Your task to perform on an android device: Open eBay Image 0: 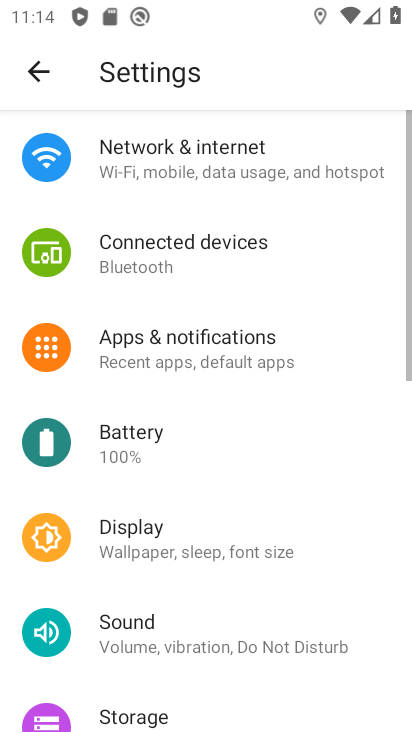
Step 0: press home button
Your task to perform on an android device: Open eBay Image 1: 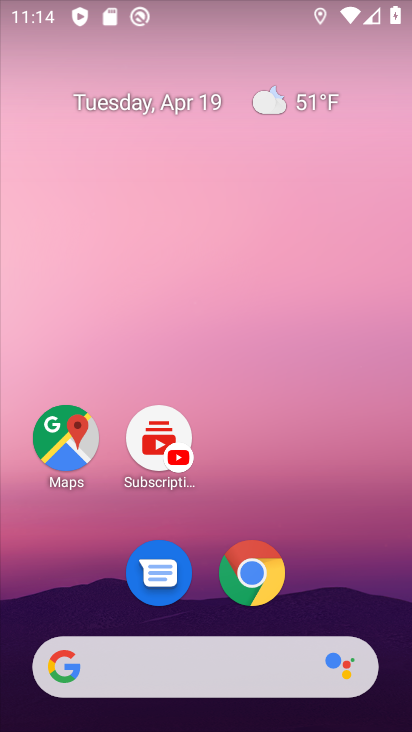
Step 1: click (245, 570)
Your task to perform on an android device: Open eBay Image 2: 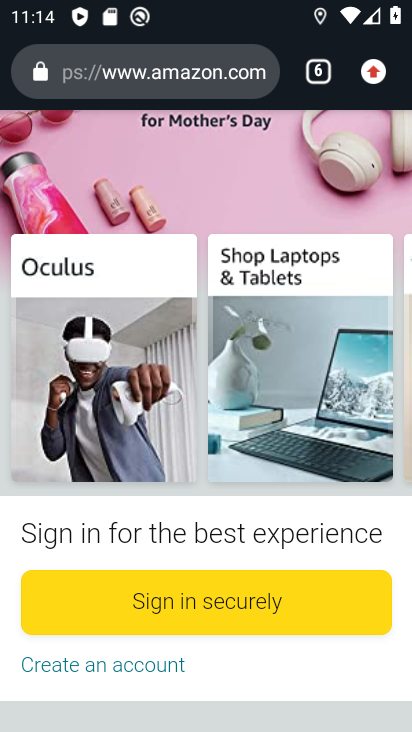
Step 2: click (318, 77)
Your task to perform on an android device: Open eBay Image 3: 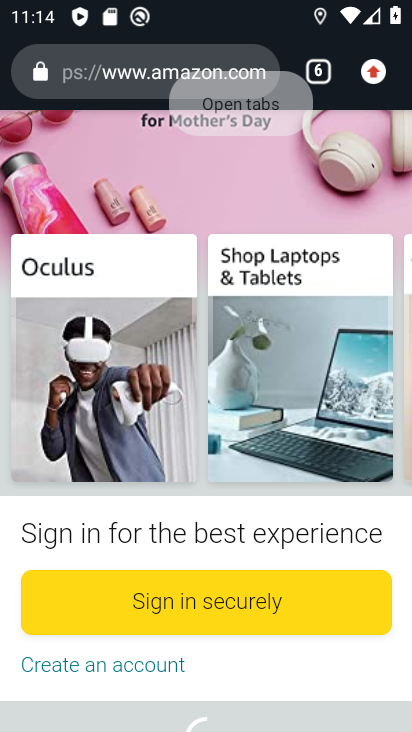
Step 3: click (318, 73)
Your task to perform on an android device: Open eBay Image 4: 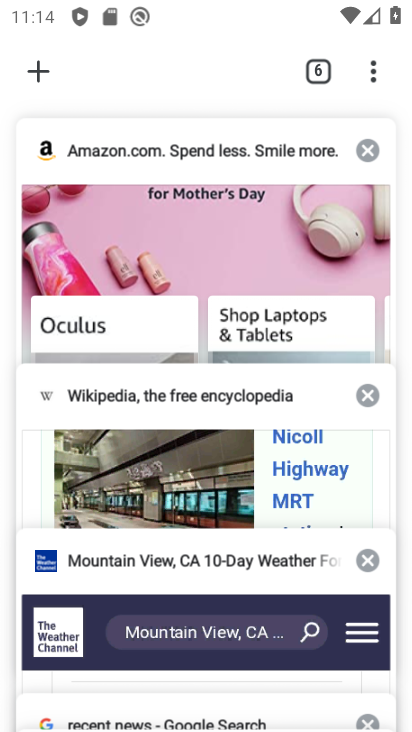
Step 4: drag from (193, 522) to (194, 188)
Your task to perform on an android device: Open eBay Image 5: 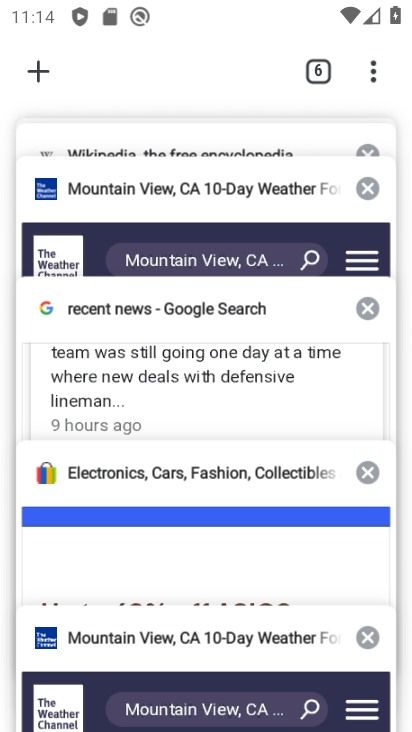
Step 5: drag from (174, 565) to (170, 207)
Your task to perform on an android device: Open eBay Image 6: 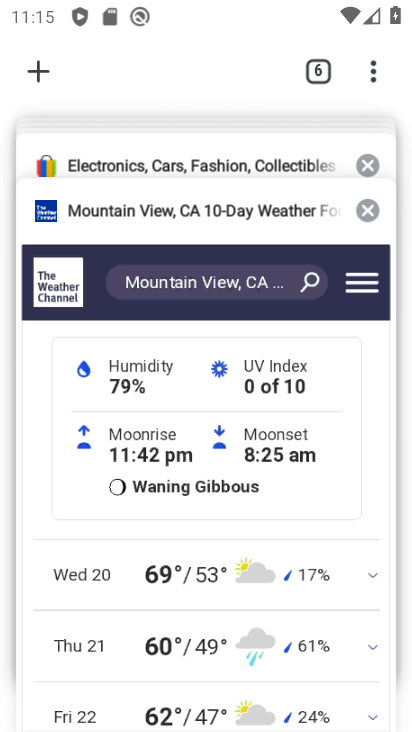
Step 6: drag from (145, 211) to (124, 393)
Your task to perform on an android device: Open eBay Image 7: 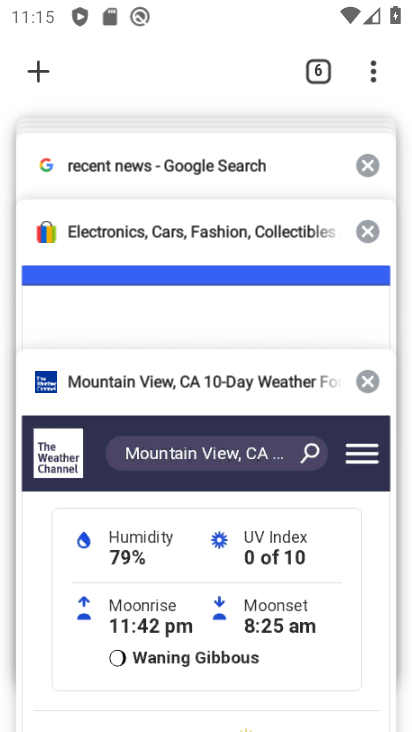
Step 7: click (136, 303)
Your task to perform on an android device: Open eBay Image 8: 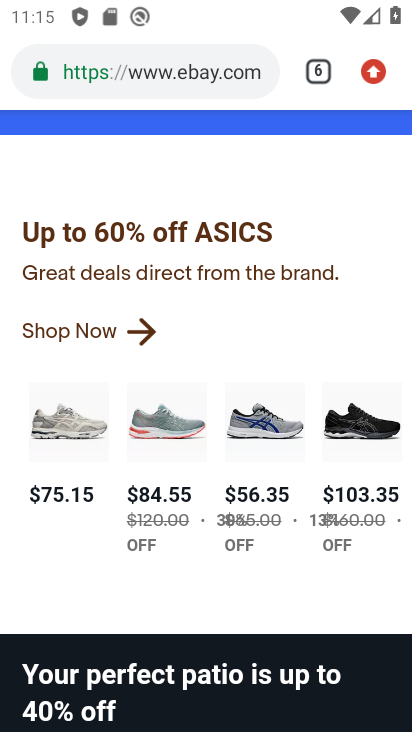
Step 8: task complete